Your task to perform on an android device: change text size in settings app Image 0: 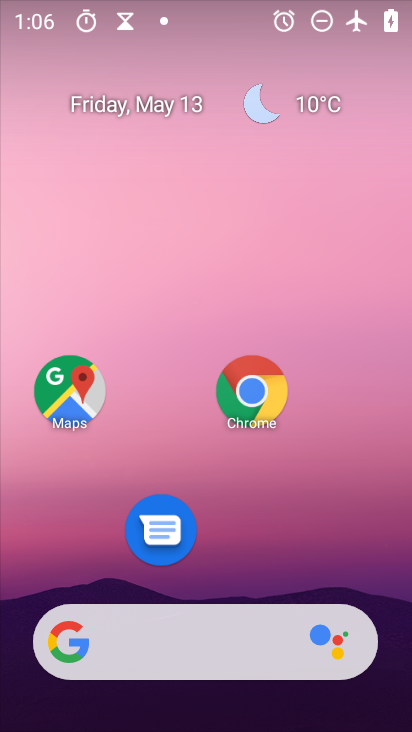
Step 0: press home button
Your task to perform on an android device: change text size in settings app Image 1: 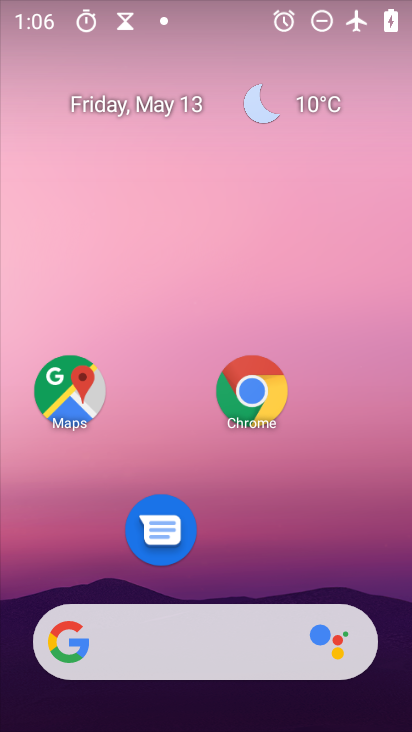
Step 1: drag from (170, 650) to (337, 109)
Your task to perform on an android device: change text size in settings app Image 2: 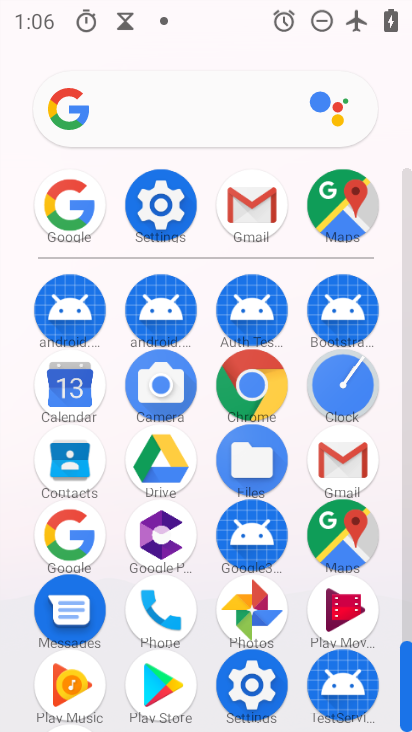
Step 2: click (168, 210)
Your task to perform on an android device: change text size in settings app Image 3: 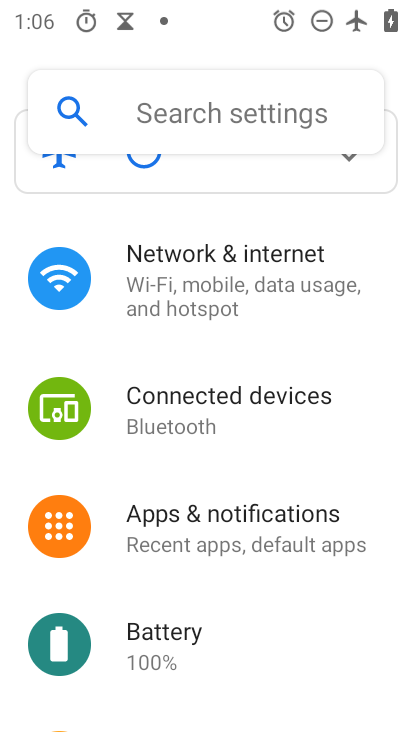
Step 3: drag from (228, 565) to (335, 249)
Your task to perform on an android device: change text size in settings app Image 4: 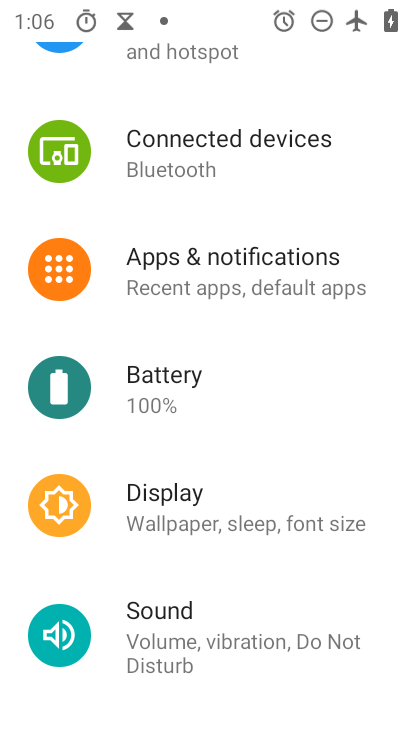
Step 4: click (235, 535)
Your task to perform on an android device: change text size in settings app Image 5: 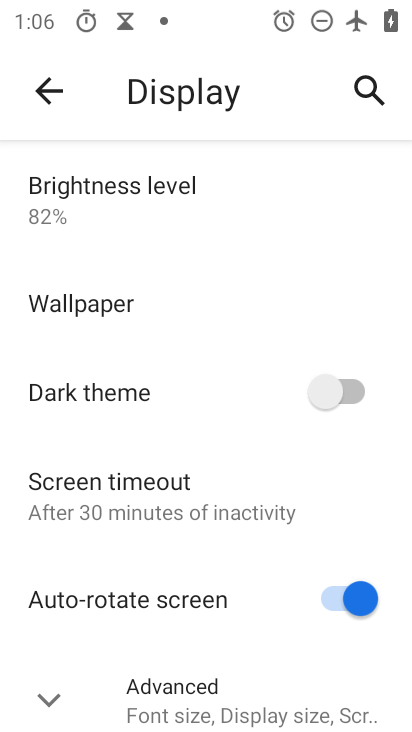
Step 5: drag from (161, 644) to (276, 390)
Your task to perform on an android device: change text size in settings app Image 6: 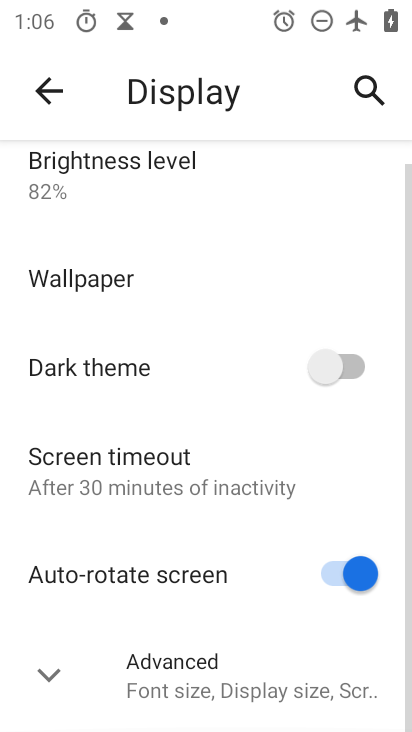
Step 6: click (198, 662)
Your task to perform on an android device: change text size in settings app Image 7: 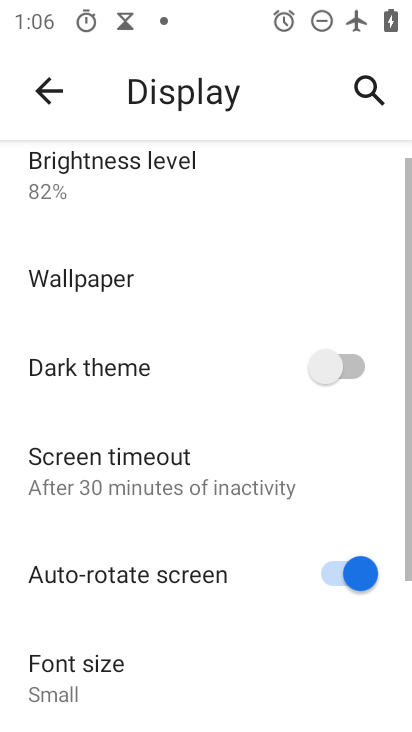
Step 7: drag from (221, 624) to (349, 232)
Your task to perform on an android device: change text size in settings app Image 8: 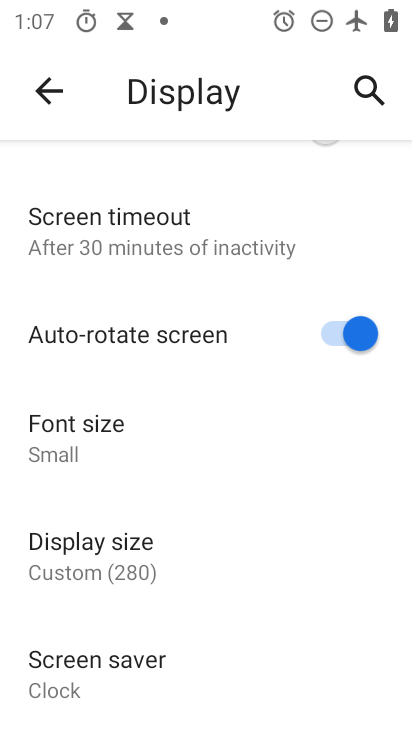
Step 8: click (106, 435)
Your task to perform on an android device: change text size in settings app Image 9: 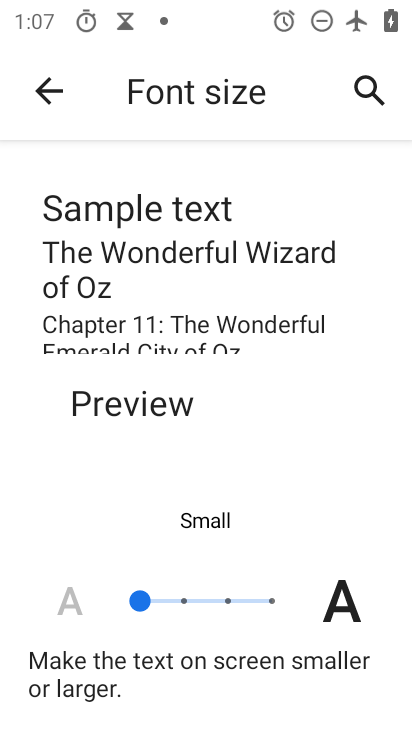
Step 9: click (184, 602)
Your task to perform on an android device: change text size in settings app Image 10: 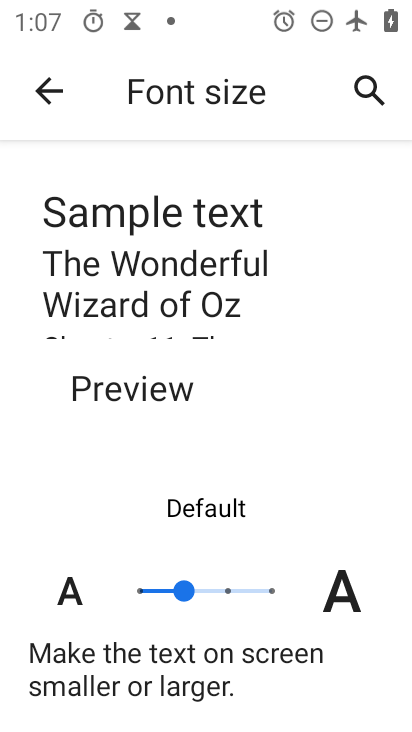
Step 10: task complete